Your task to perform on an android device: delete a single message in the gmail app Image 0: 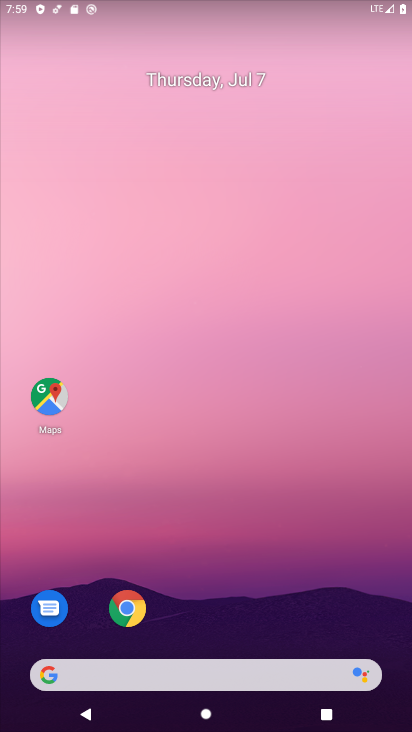
Step 0: drag from (348, 624) to (290, 12)
Your task to perform on an android device: delete a single message in the gmail app Image 1: 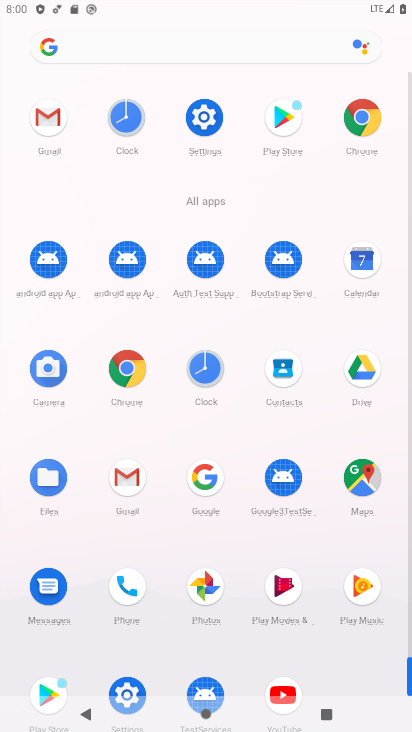
Step 1: click (124, 476)
Your task to perform on an android device: delete a single message in the gmail app Image 2: 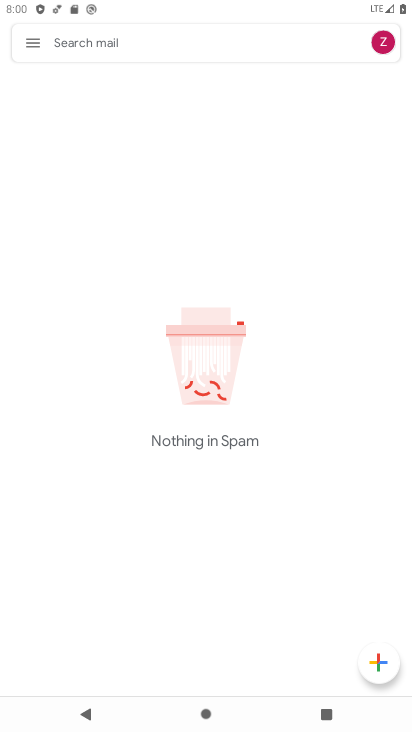
Step 2: click (31, 42)
Your task to perform on an android device: delete a single message in the gmail app Image 3: 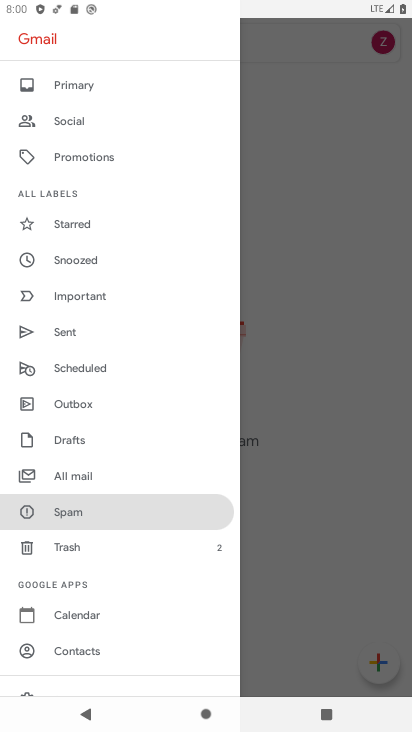
Step 3: click (69, 476)
Your task to perform on an android device: delete a single message in the gmail app Image 4: 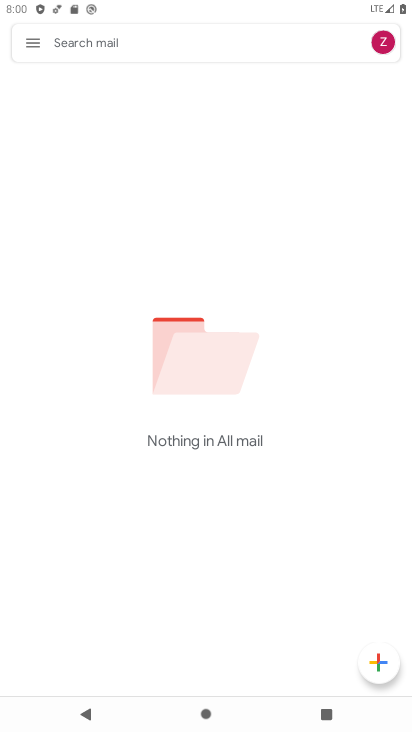
Step 4: task complete